Your task to perform on an android device: change the clock style Image 0: 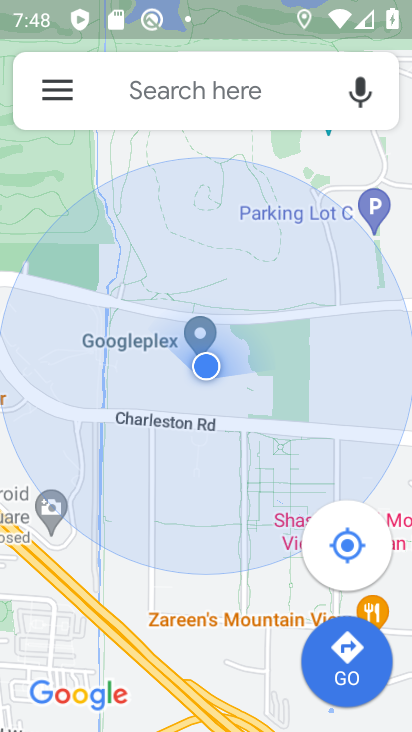
Step 0: press home button
Your task to perform on an android device: change the clock style Image 1: 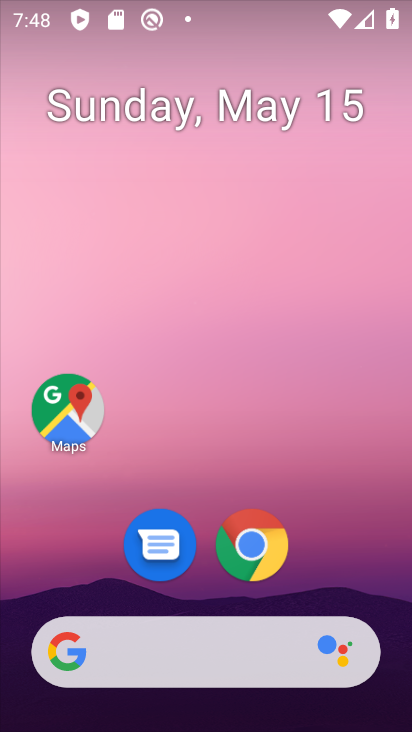
Step 1: drag from (383, 572) to (387, 107)
Your task to perform on an android device: change the clock style Image 2: 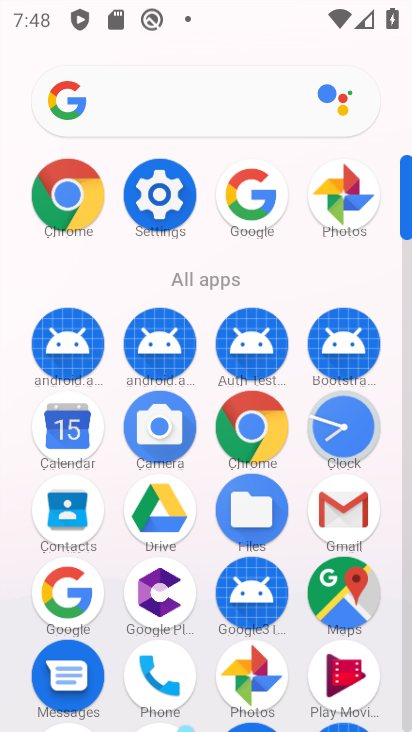
Step 2: click (337, 430)
Your task to perform on an android device: change the clock style Image 3: 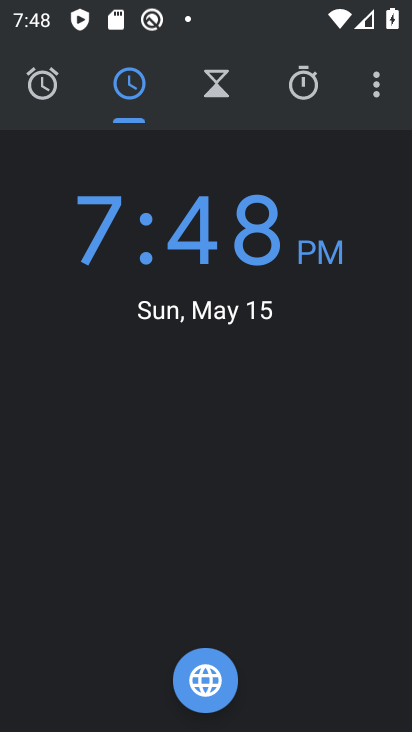
Step 3: click (373, 95)
Your task to perform on an android device: change the clock style Image 4: 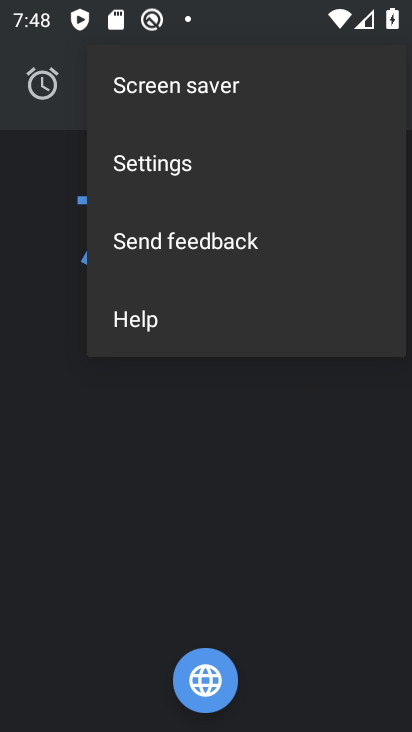
Step 4: click (180, 166)
Your task to perform on an android device: change the clock style Image 5: 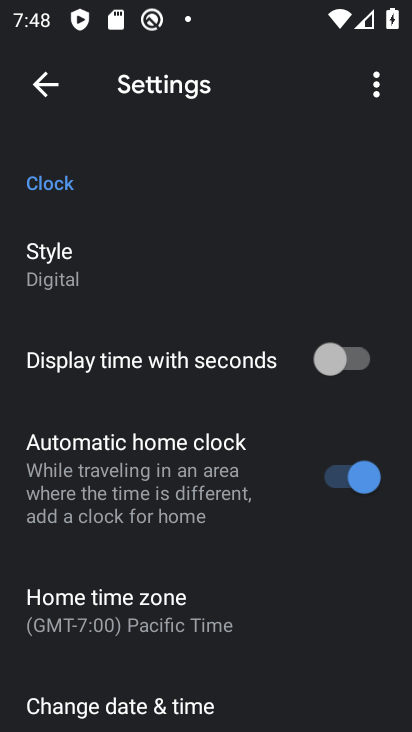
Step 5: click (73, 264)
Your task to perform on an android device: change the clock style Image 6: 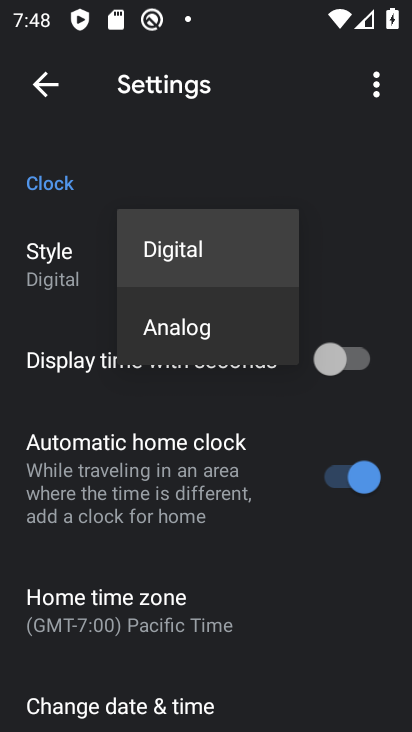
Step 6: click (190, 326)
Your task to perform on an android device: change the clock style Image 7: 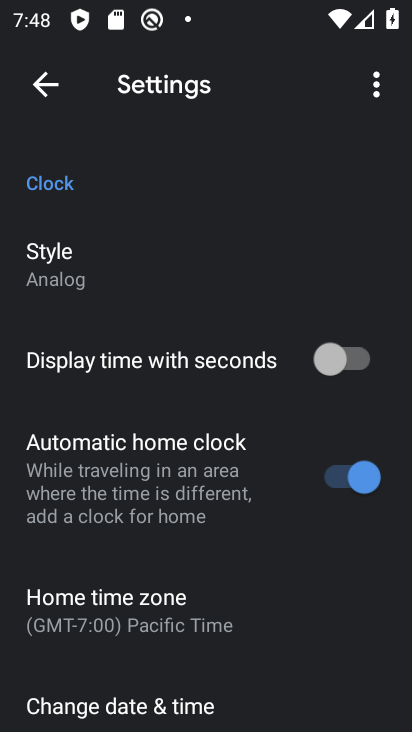
Step 7: task complete